Your task to perform on an android device: change notification settings in the gmail app Image 0: 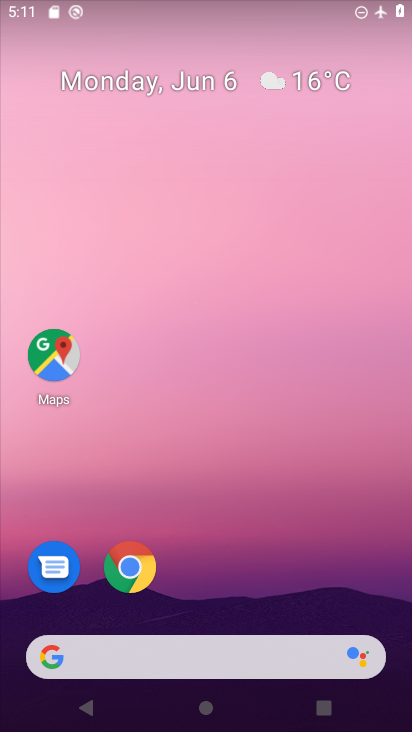
Step 0: drag from (237, 684) to (221, 142)
Your task to perform on an android device: change notification settings in the gmail app Image 1: 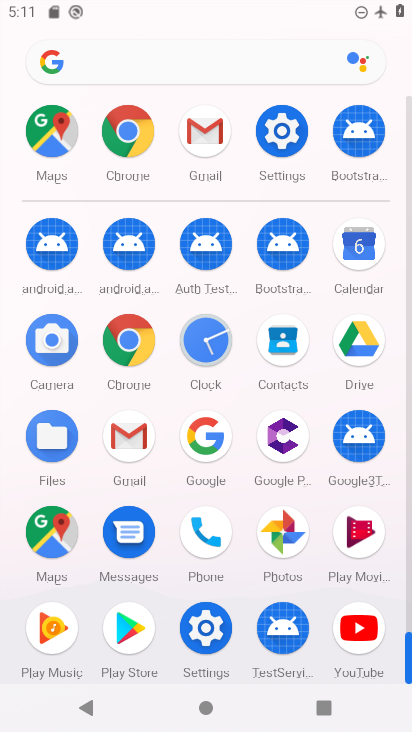
Step 1: click (116, 432)
Your task to perform on an android device: change notification settings in the gmail app Image 2: 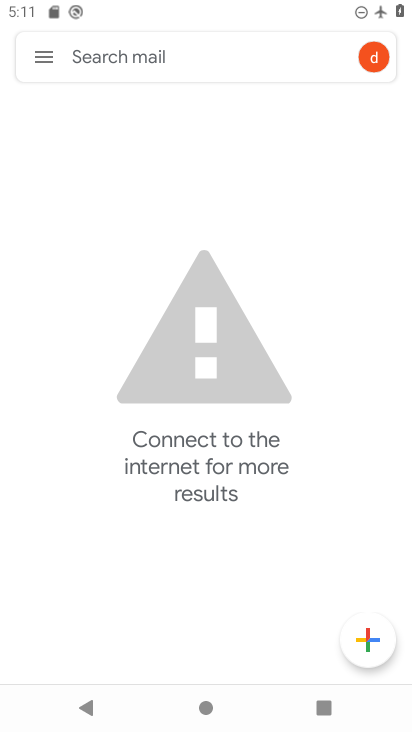
Step 2: click (27, 61)
Your task to perform on an android device: change notification settings in the gmail app Image 3: 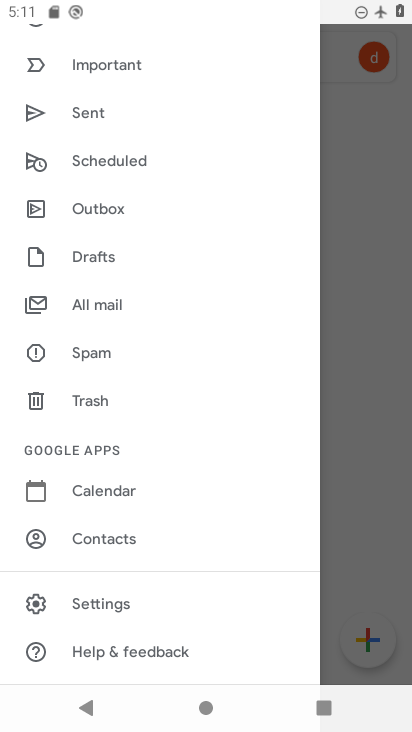
Step 3: click (75, 588)
Your task to perform on an android device: change notification settings in the gmail app Image 4: 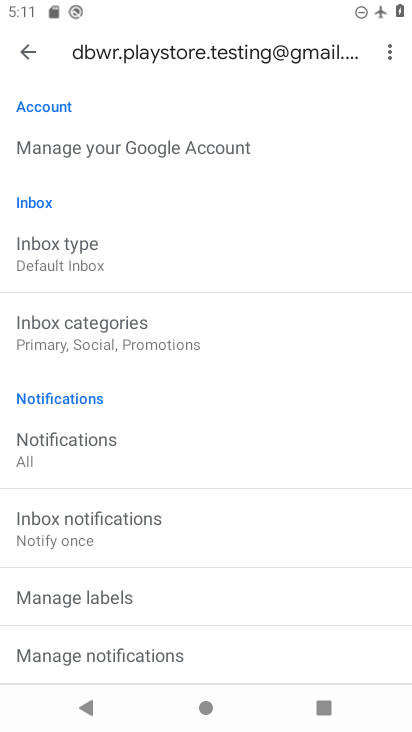
Step 4: click (47, 448)
Your task to perform on an android device: change notification settings in the gmail app Image 5: 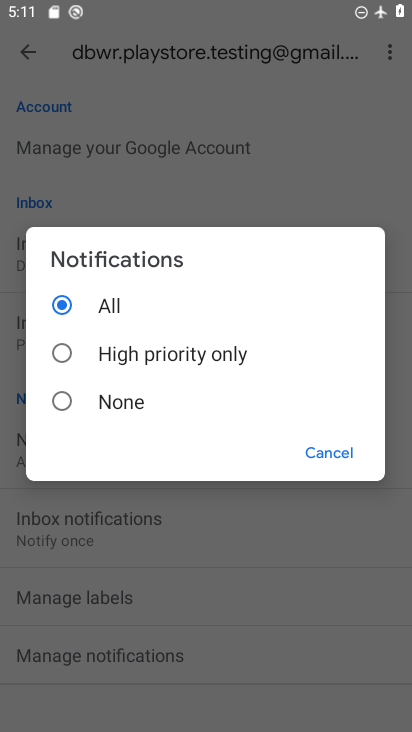
Step 5: click (69, 336)
Your task to perform on an android device: change notification settings in the gmail app Image 6: 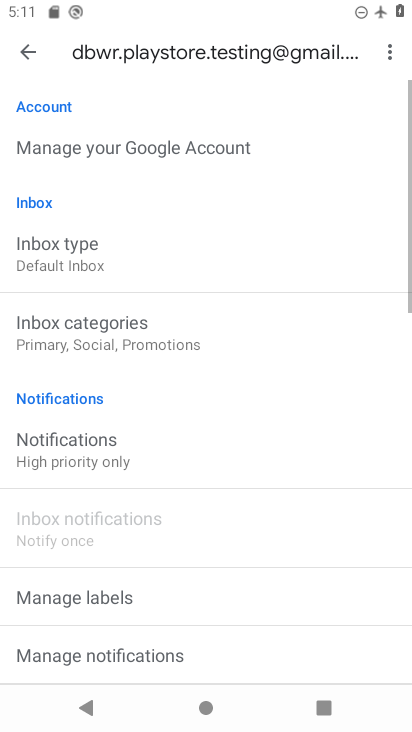
Step 6: click (67, 346)
Your task to perform on an android device: change notification settings in the gmail app Image 7: 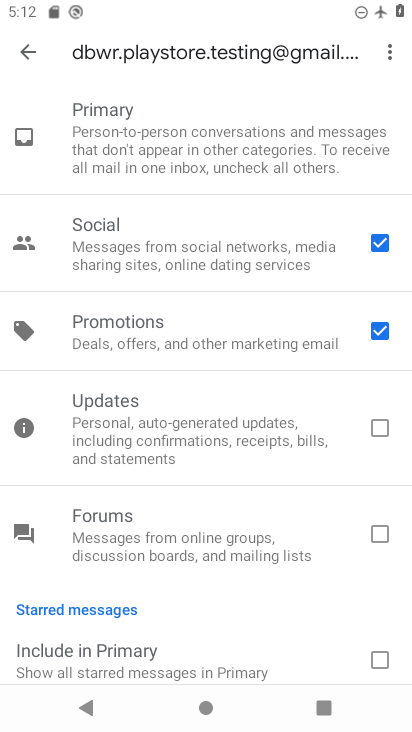
Step 7: click (23, 49)
Your task to perform on an android device: change notification settings in the gmail app Image 8: 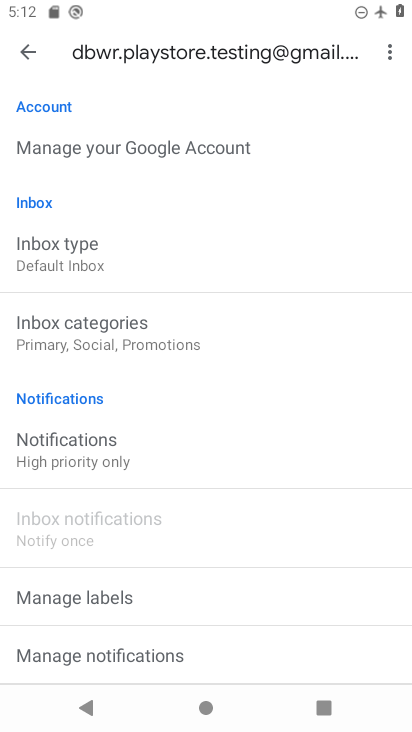
Step 8: click (81, 445)
Your task to perform on an android device: change notification settings in the gmail app Image 9: 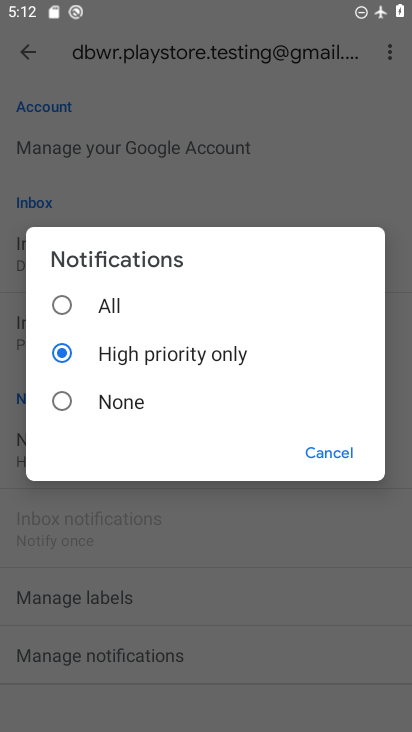
Step 9: click (65, 295)
Your task to perform on an android device: change notification settings in the gmail app Image 10: 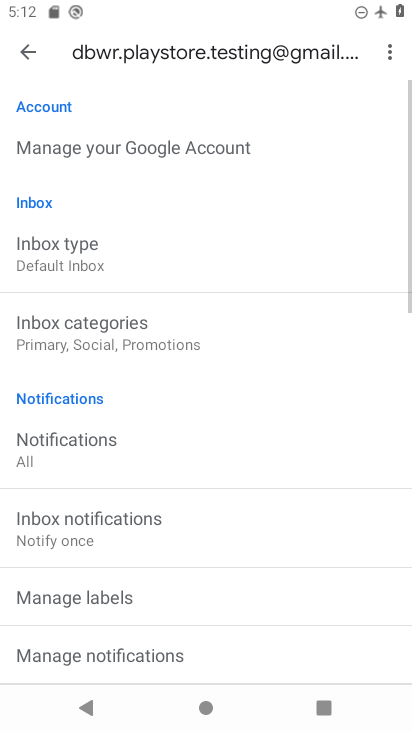
Step 10: task complete